Your task to perform on an android device: Search for "razer thresher" on ebay.com, select the first entry, and add it to the cart. Image 0: 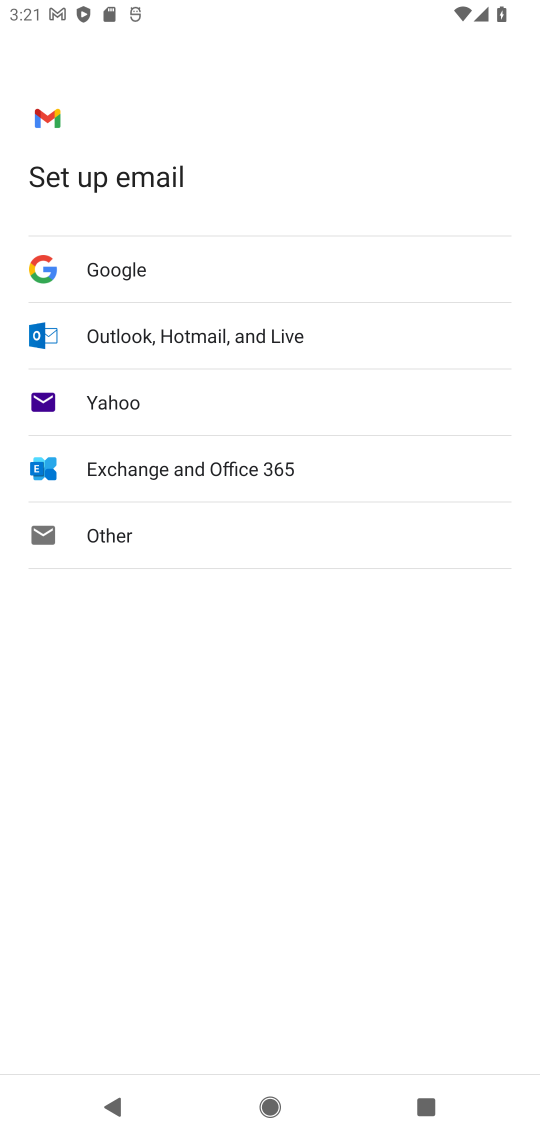
Step 0: press home button
Your task to perform on an android device: Search for "razer thresher" on ebay.com, select the first entry, and add it to the cart. Image 1: 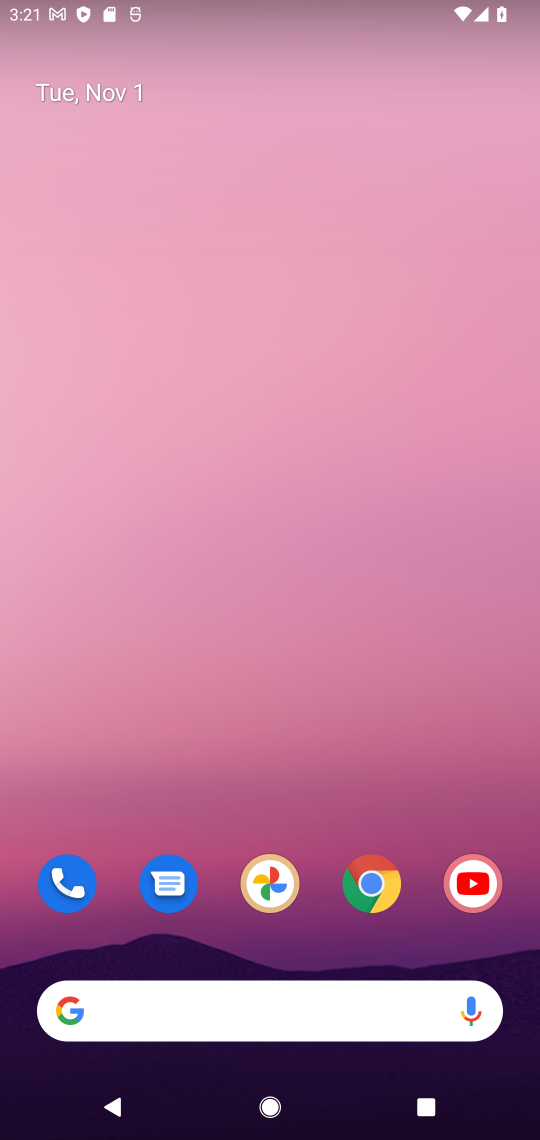
Step 1: click (382, 869)
Your task to perform on an android device: Search for "razer thresher" on ebay.com, select the first entry, and add it to the cart. Image 2: 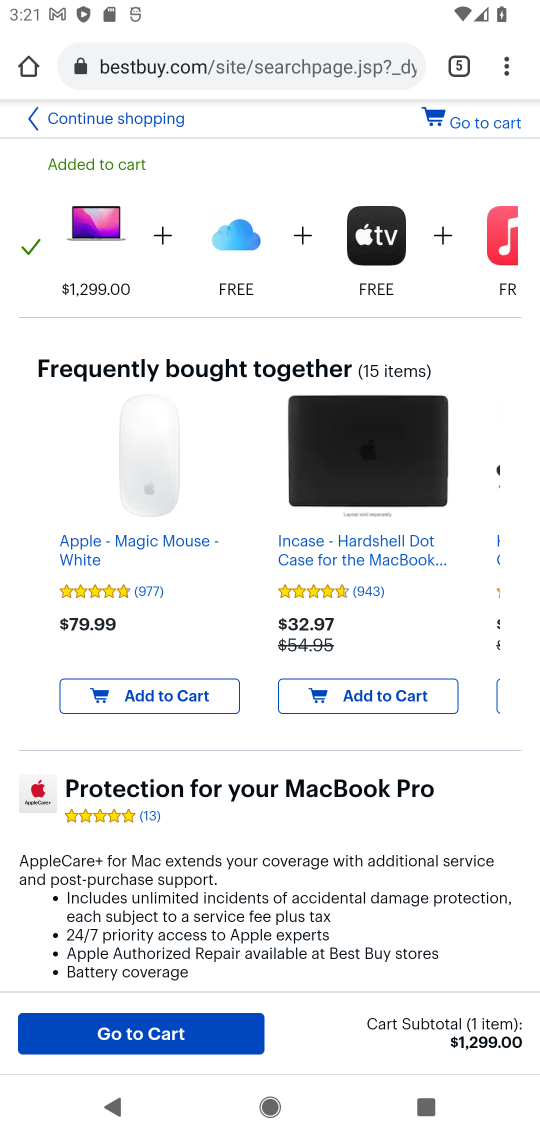
Step 2: click (459, 63)
Your task to perform on an android device: Search for "razer thresher" on ebay.com, select the first entry, and add it to the cart. Image 3: 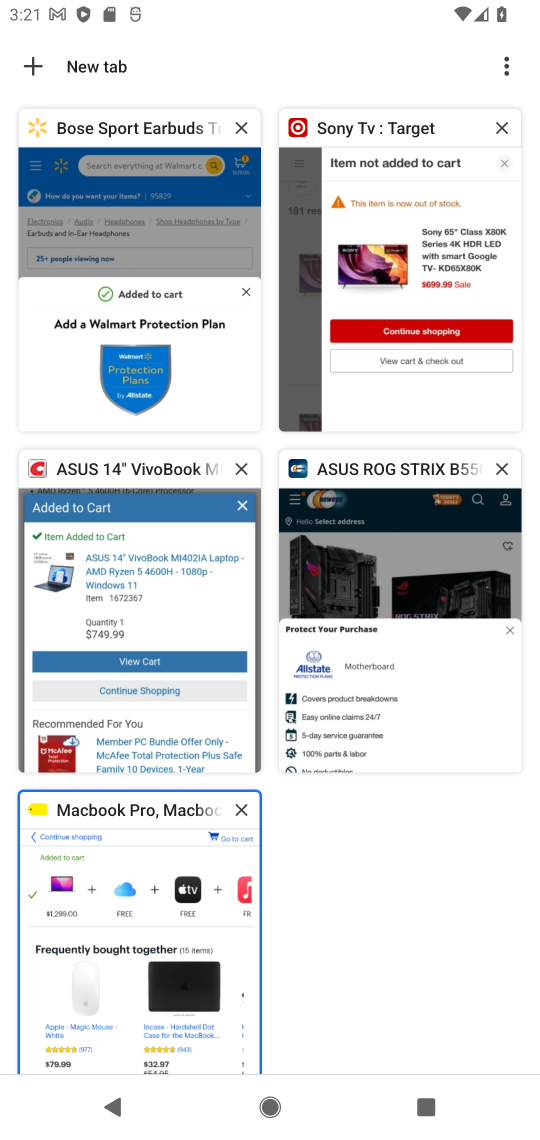
Step 3: click (25, 67)
Your task to perform on an android device: Search for "razer thresher" on ebay.com, select the first entry, and add it to the cart. Image 4: 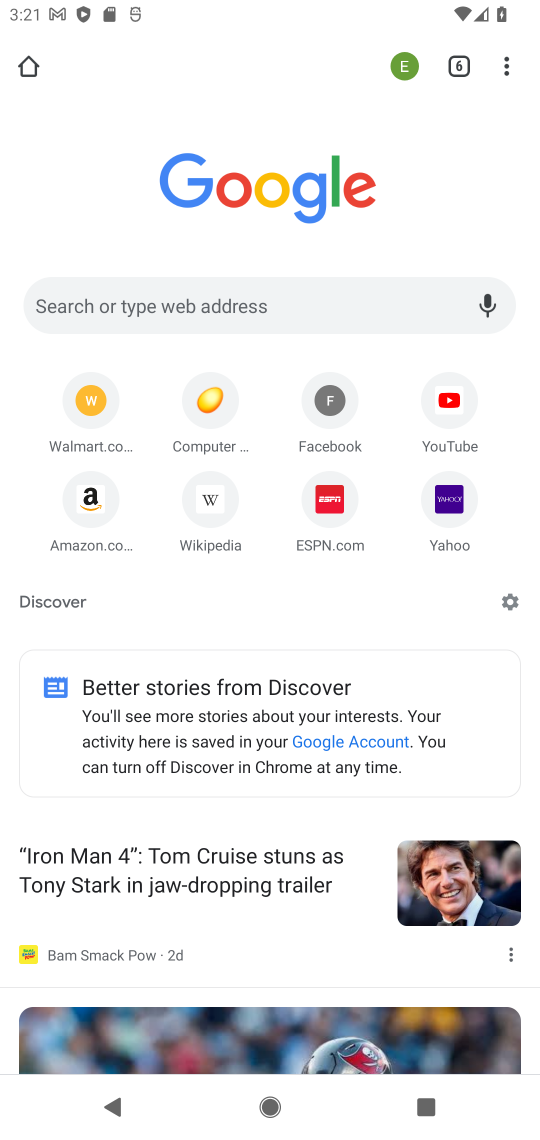
Step 4: click (160, 298)
Your task to perform on an android device: Search for "razer thresher" on ebay.com, select the first entry, and add it to the cart. Image 5: 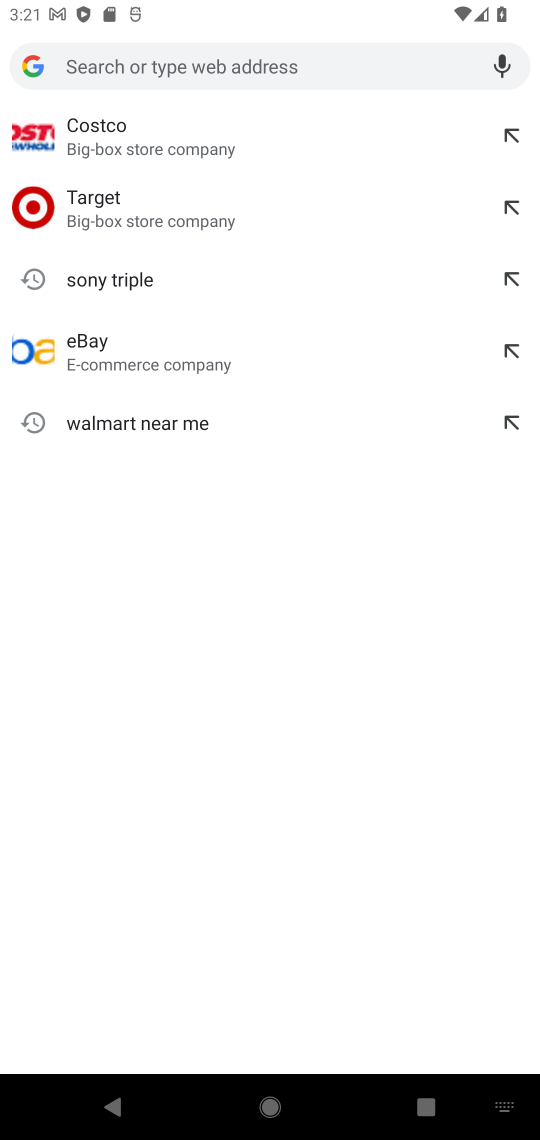
Step 5: type "ebay"
Your task to perform on an android device: Search for "razer thresher" on ebay.com, select the first entry, and add it to the cart. Image 6: 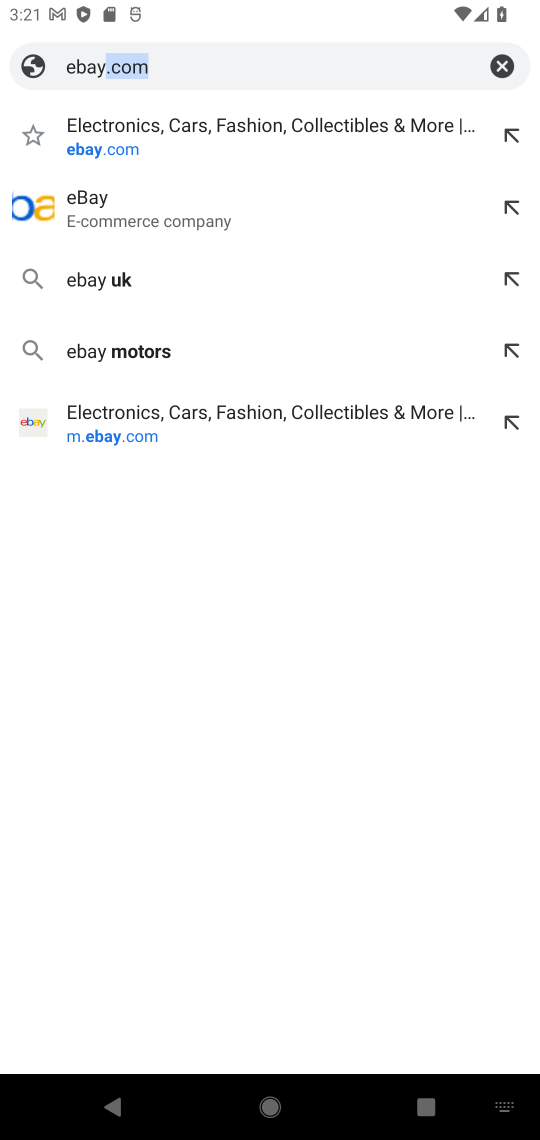
Step 6: click (62, 205)
Your task to perform on an android device: Search for "razer thresher" on ebay.com, select the first entry, and add it to the cart. Image 7: 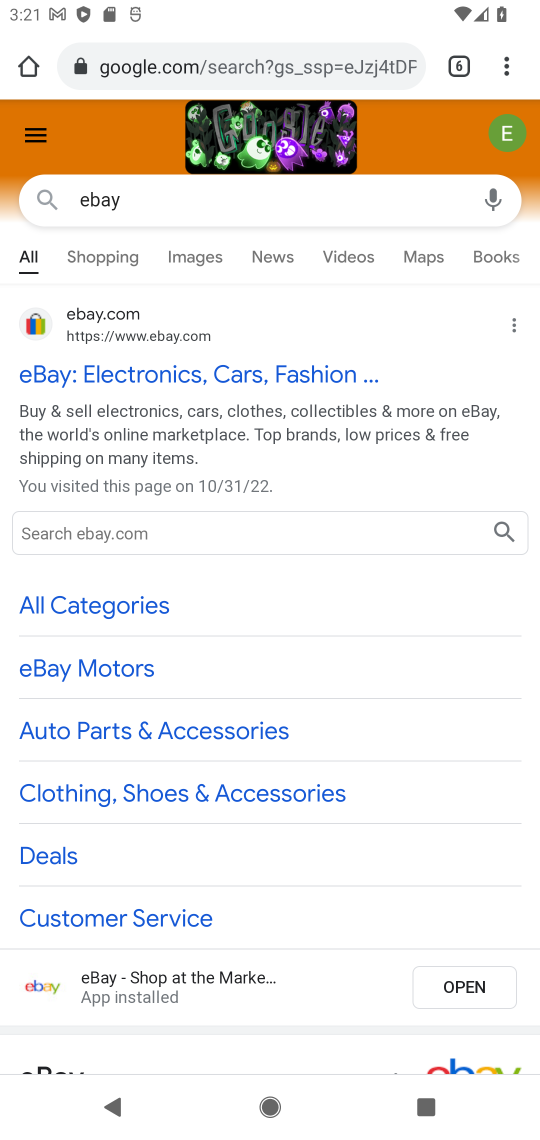
Step 7: click (195, 373)
Your task to perform on an android device: Search for "razer thresher" on ebay.com, select the first entry, and add it to the cart. Image 8: 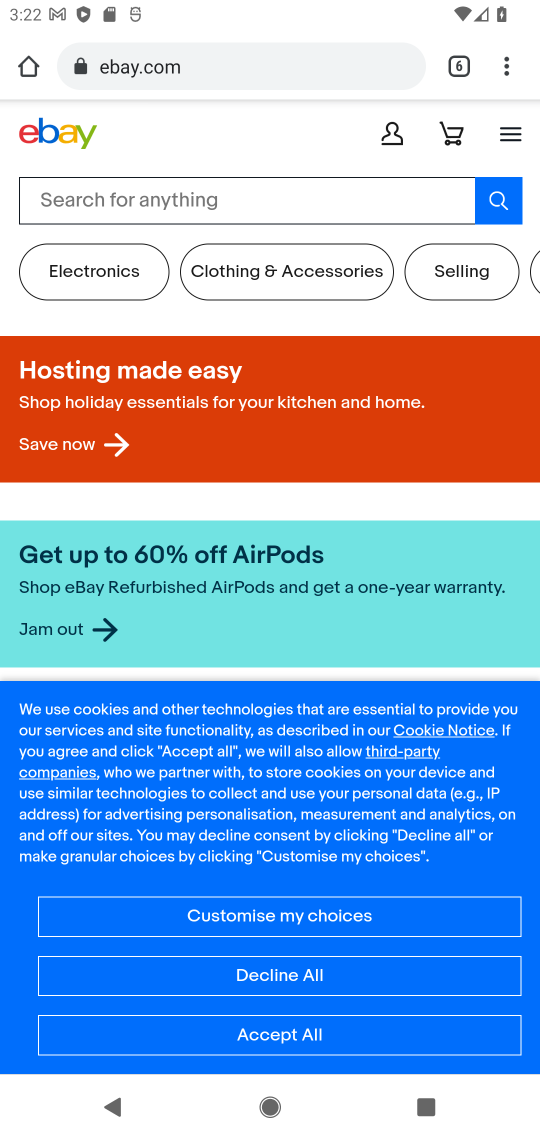
Step 8: click (215, 974)
Your task to perform on an android device: Search for "razer thresher" on ebay.com, select the first entry, and add it to the cart. Image 9: 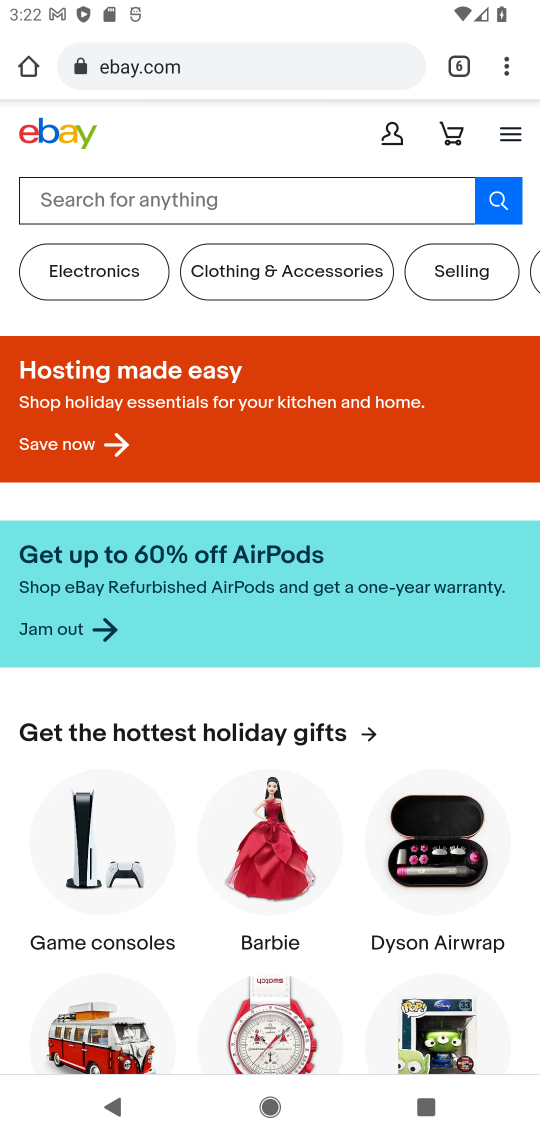
Step 9: click (135, 194)
Your task to perform on an android device: Search for "razer thresher" on ebay.com, select the first entry, and add it to the cart. Image 10: 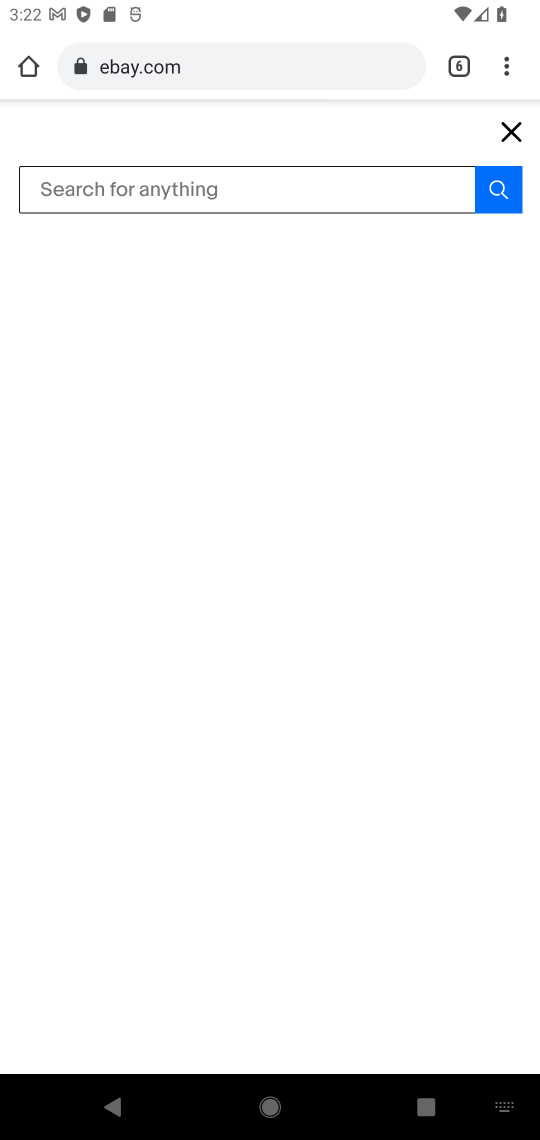
Step 10: type "razer thresher"
Your task to perform on an android device: Search for "razer thresher" on ebay.com, select the first entry, and add it to the cart. Image 11: 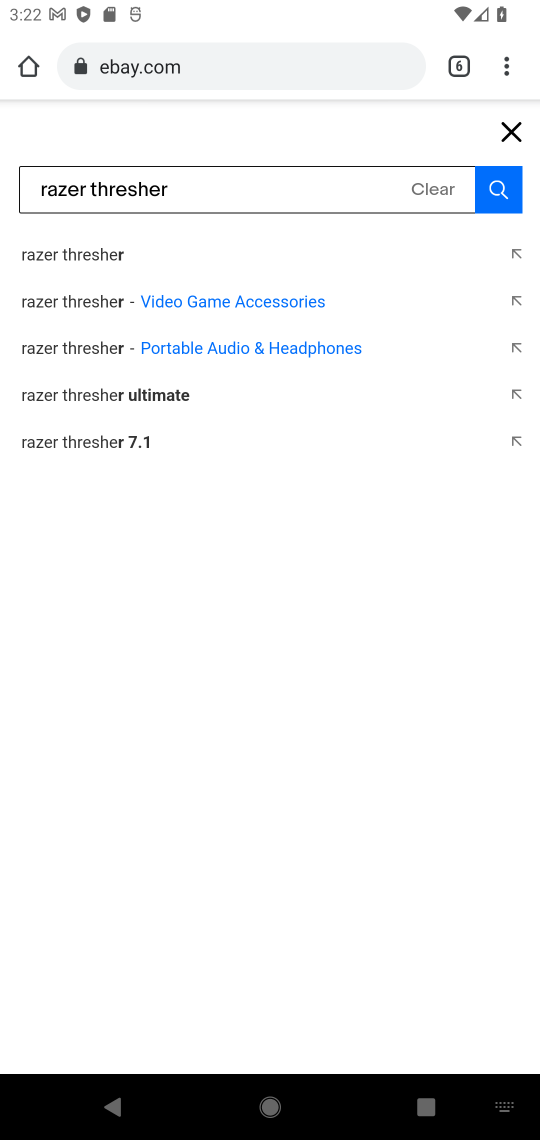
Step 11: click (43, 294)
Your task to perform on an android device: Search for "razer thresher" on ebay.com, select the first entry, and add it to the cart. Image 12: 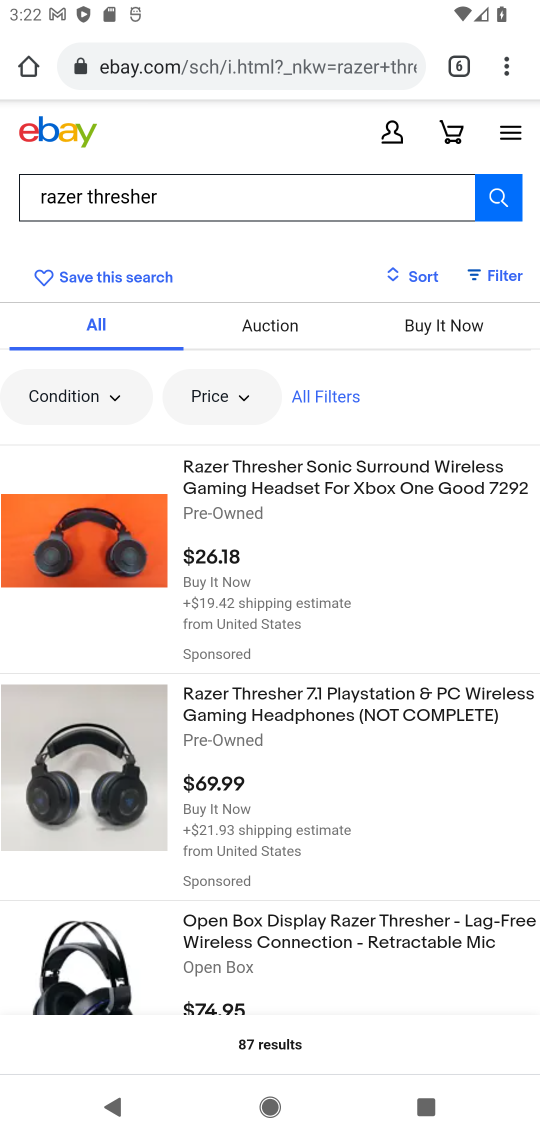
Step 12: click (225, 471)
Your task to perform on an android device: Search for "razer thresher" on ebay.com, select the first entry, and add it to the cart. Image 13: 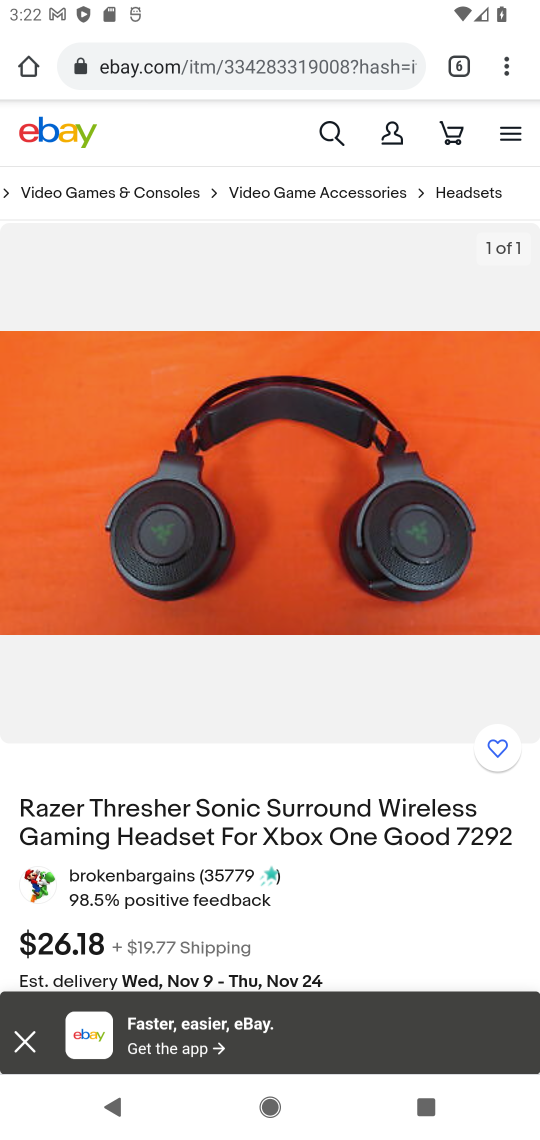
Step 13: drag from (206, 919) to (215, 107)
Your task to perform on an android device: Search for "razer thresher" on ebay.com, select the first entry, and add it to the cart. Image 14: 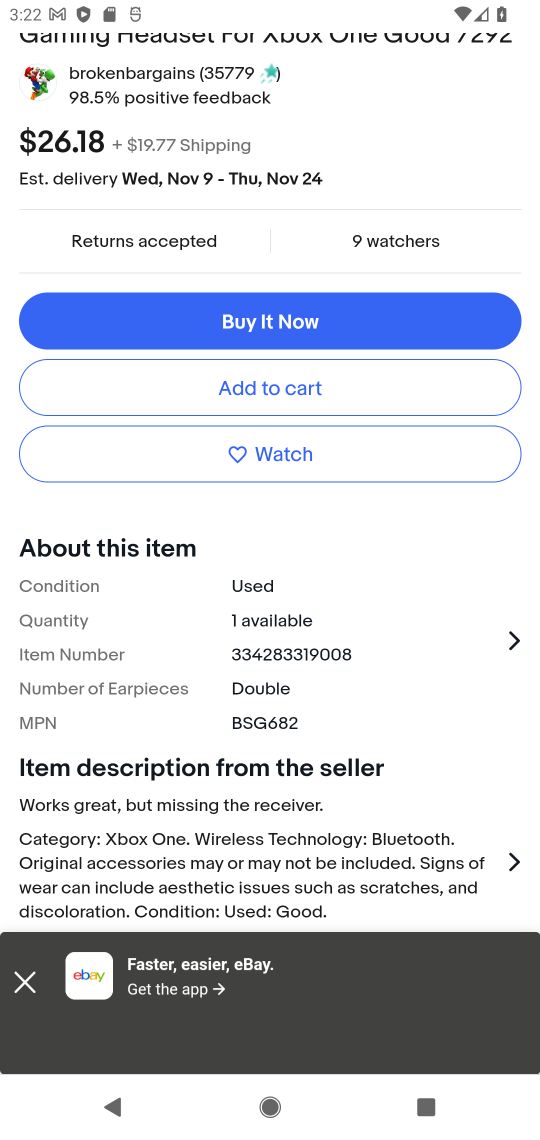
Step 14: click (276, 379)
Your task to perform on an android device: Search for "razer thresher" on ebay.com, select the first entry, and add it to the cart. Image 15: 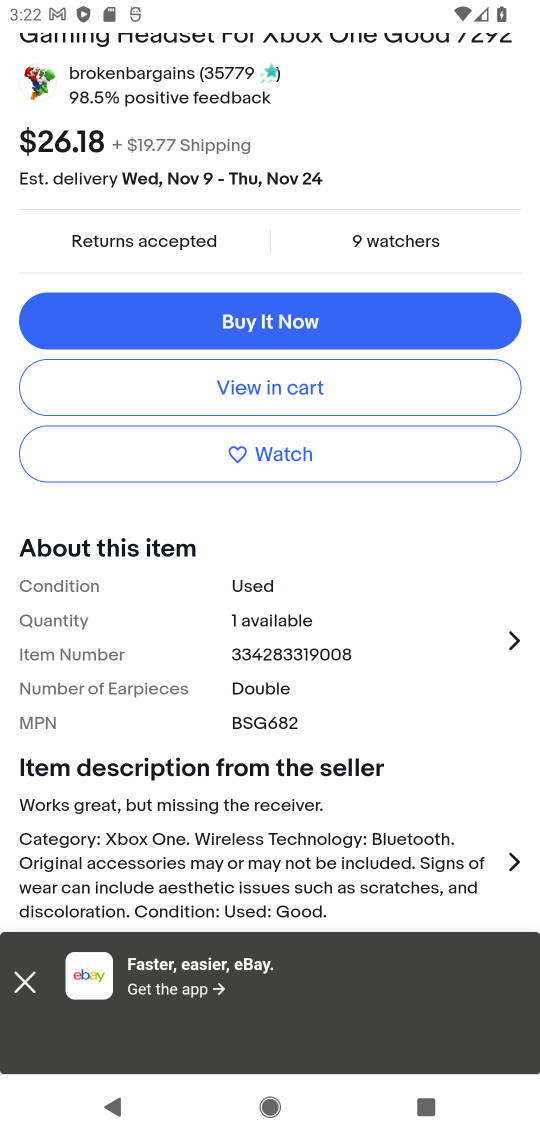
Step 15: task complete